Your task to perform on an android device: What's on my calendar today? Image 0: 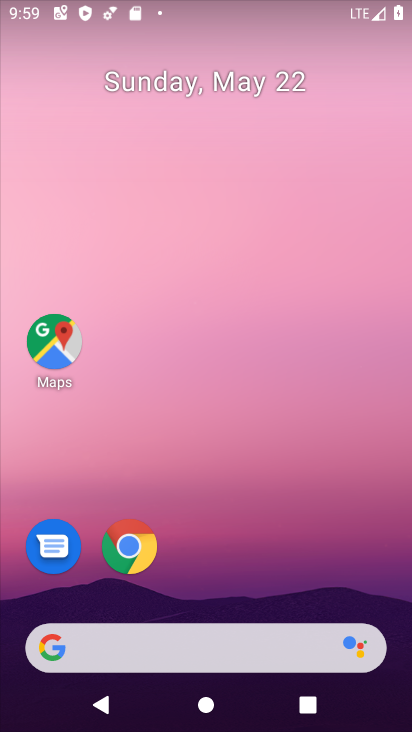
Step 0: drag from (228, 555) to (292, 201)
Your task to perform on an android device: What's on my calendar today? Image 1: 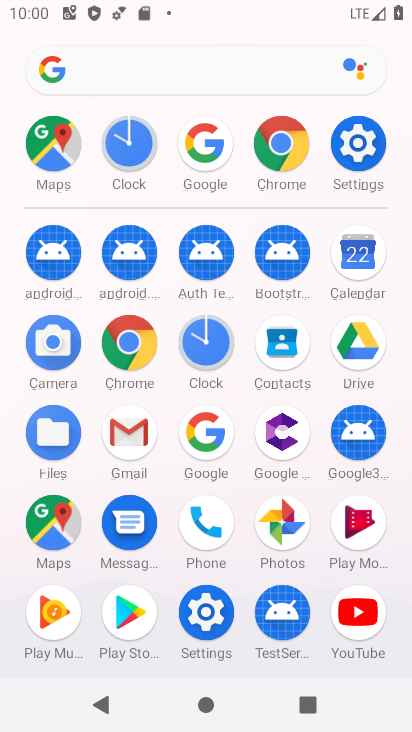
Step 1: click (370, 249)
Your task to perform on an android device: What's on my calendar today? Image 2: 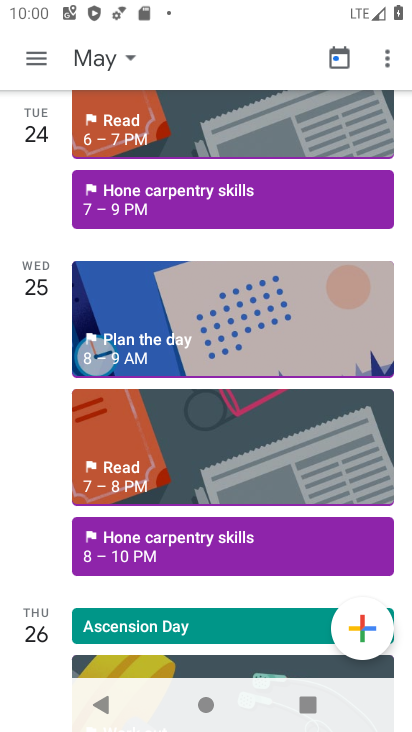
Step 2: click (97, 48)
Your task to perform on an android device: What's on my calendar today? Image 3: 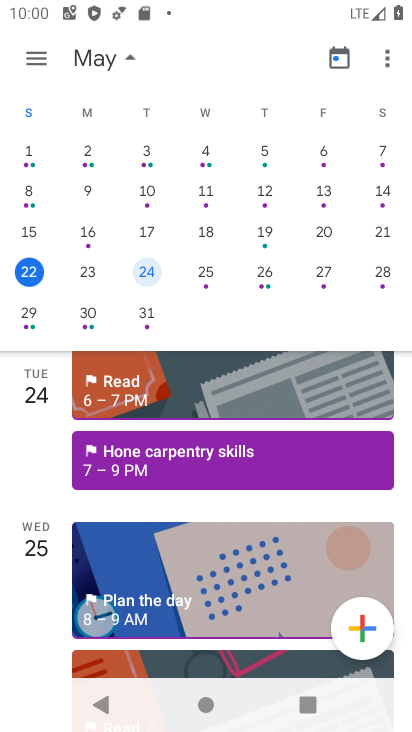
Step 3: click (82, 267)
Your task to perform on an android device: What's on my calendar today? Image 4: 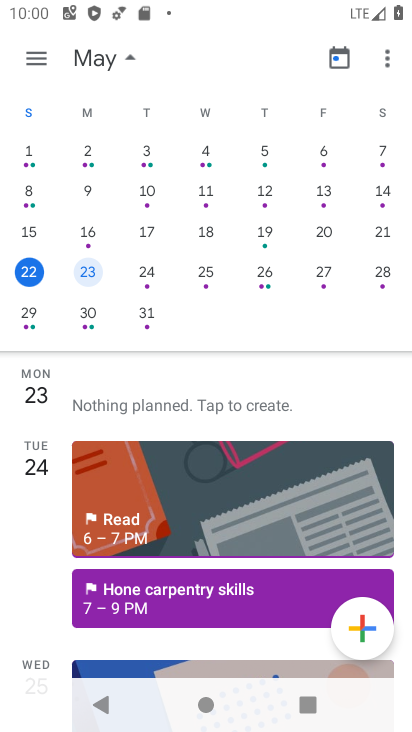
Step 4: drag from (221, 600) to (262, 380)
Your task to perform on an android device: What's on my calendar today? Image 5: 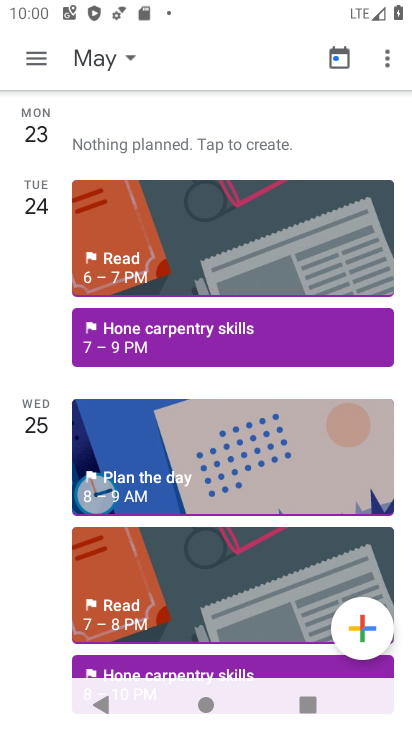
Step 5: drag from (214, 583) to (267, 284)
Your task to perform on an android device: What's on my calendar today? Image 6: 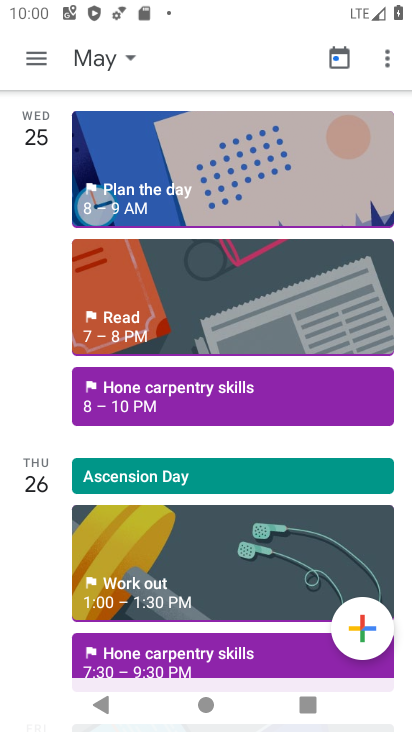
Step 6: click (113, 52)
Your task to perform on an android device: What's on my calendar today? Image 7: 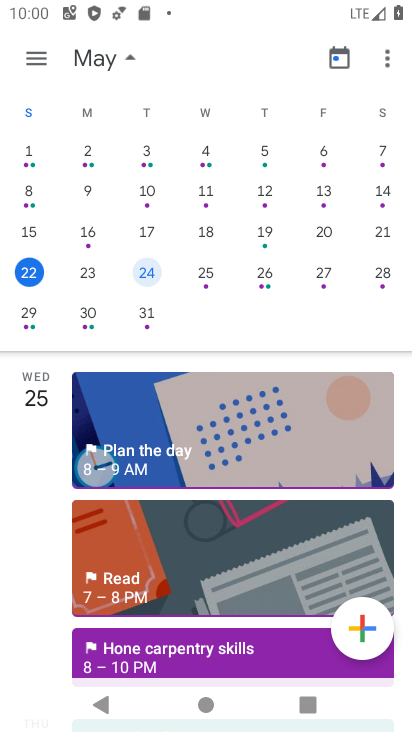
Step 7: click (128, 63)
Your task to perform on an android device: What's on my calendar today? Image 8: 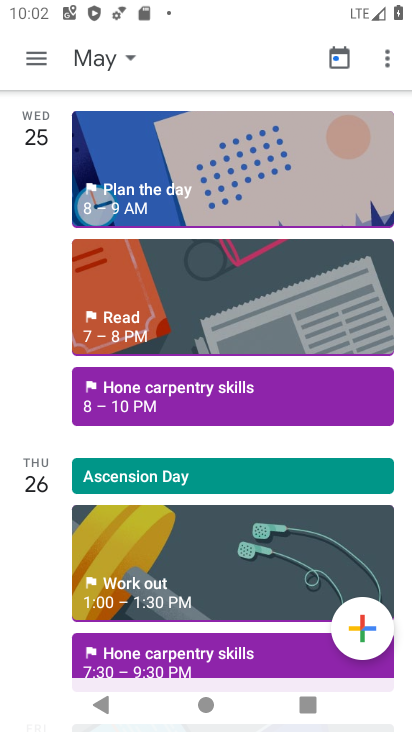
Step 8: click (135, 56)
Your task to perform on an android device: What's on my calendar today? Image 9: 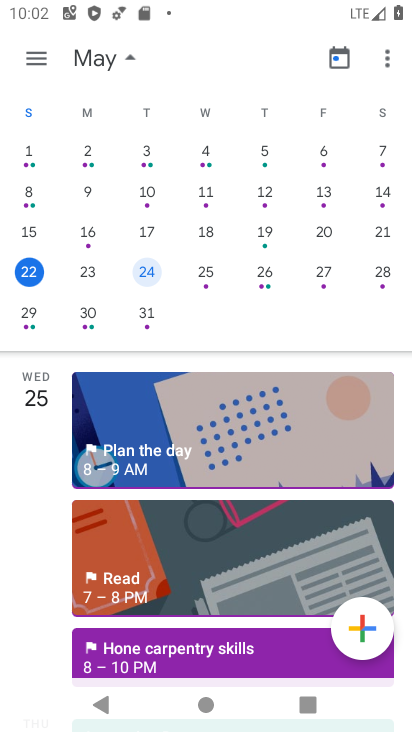
Step 9: drag from (184, 561) to (227, 197)
Your task to perform on an android device: What's on my calendar today? Image 10: 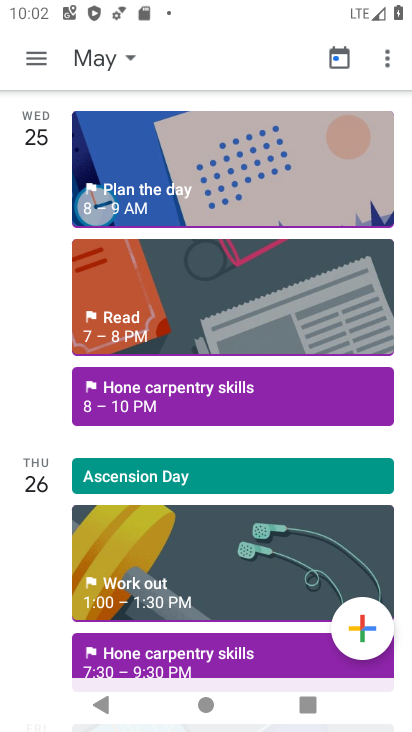
Step 10: drag from (126, 218) to (173, 572)
Your task to perform on an android device: What's on my calendar today? Image 11: 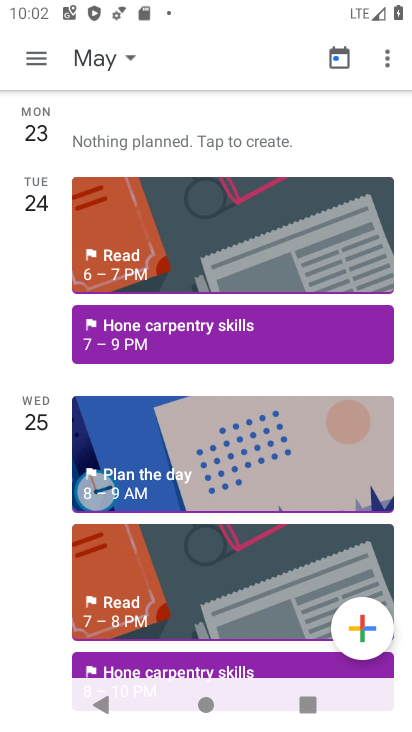
Step 11: click (111, 38)
Your task to perform on an android device: What's on my calendar today? Image 12: 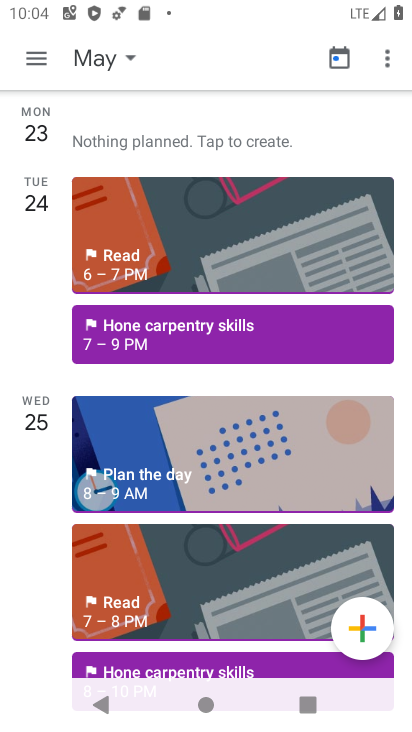
Step 12: click (120, 51)
Your task to perform on an android device: What's on my calendar today? Image 13: 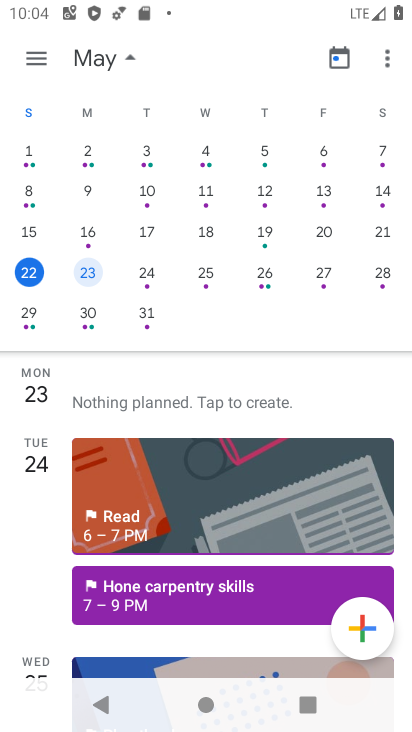
Step 13: click (89, 268)
Your task to perform on an android device: What's on my calendar today? Image 14: 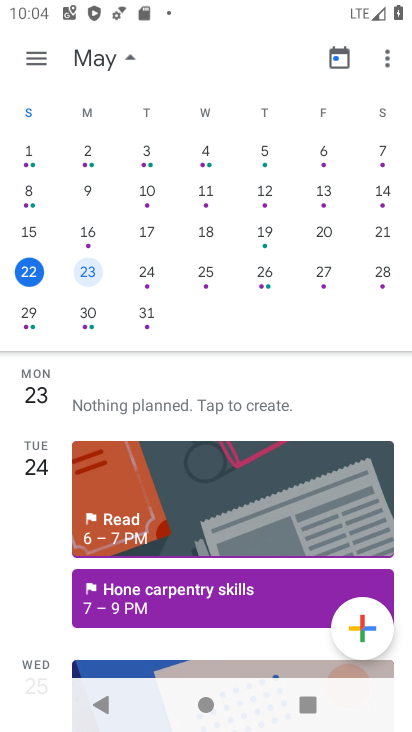
Step 14: task complete